Your task to perform on an android device: Google the capital of Panama Image 0: 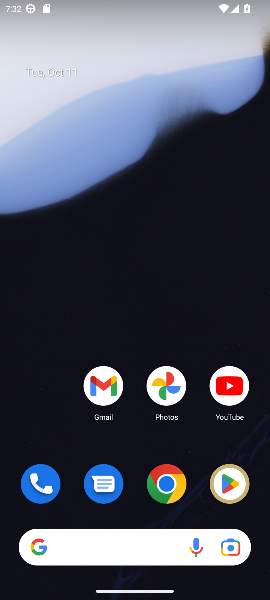
Step 0: click (168, 484)
Your task to perform on an android device: Google the capital of Panama Image 1: 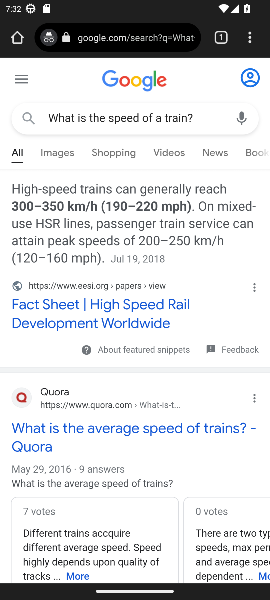
Step 1: click (148, 41)
Your task to perform on an android device: Google the capital of Panama Image 2: 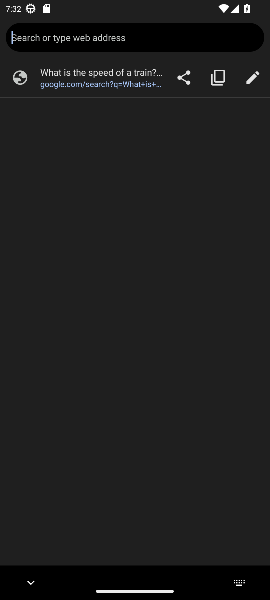
Step 2: type "capital of Panama"
Your task to perform on an android device: Google the capital of Panama Image 3: 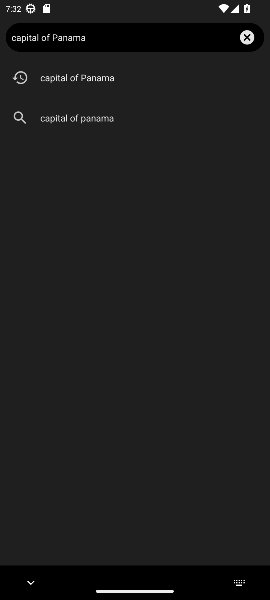
Step 3: click (88, 77)
Your task to perform on an android device: Google the capital of Panama Image 4: 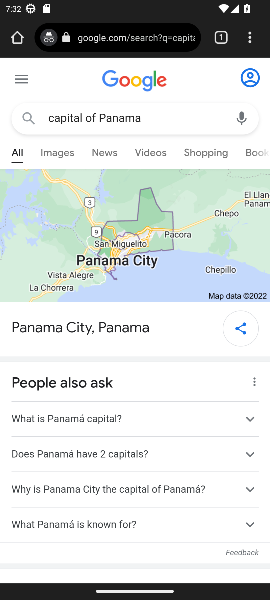
Step 4: task complete